Your task to perform on an android device: Is it going to rain this weekend? Image 0: 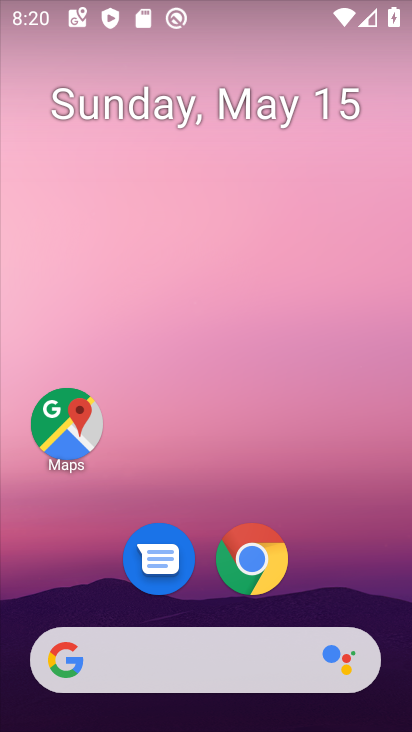
Step 0: drag from (376, 567) to (397, 153)
Your task to perform on an android device: Is it going to rain this weekend? Image 1: 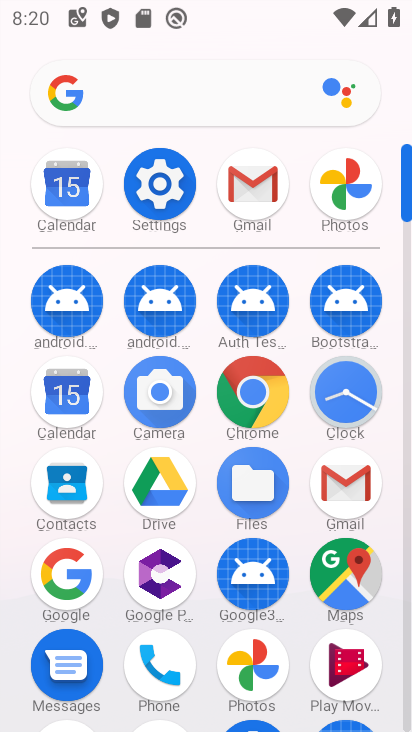
Step 1: click (217, 94)
Your task to perform on an android device: Is it going to rain this weekend? Image 2: 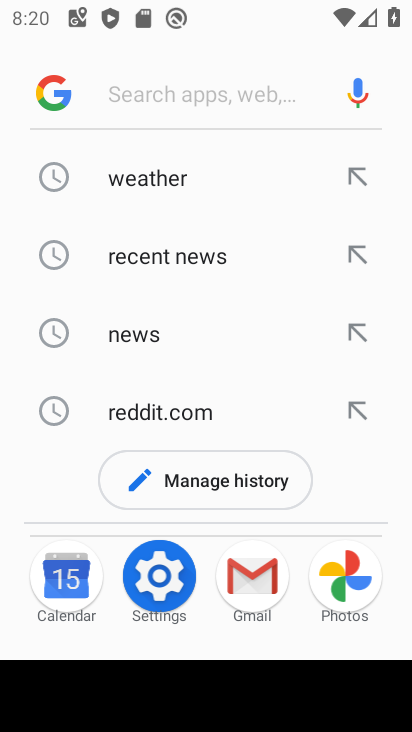
Step 2: click (176, 208)
Your task to perform on an android device: Is it going to rain this weekend? Image 3: 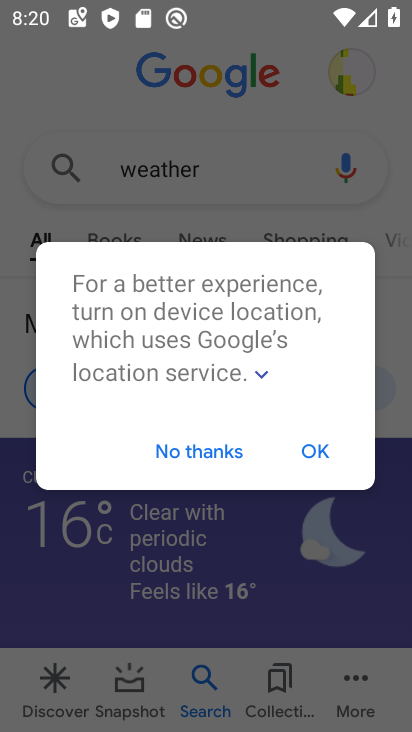
Step 3: click (299, 454)
Your task to perform on an android device: Is it going to rain this weekend? Image 4: 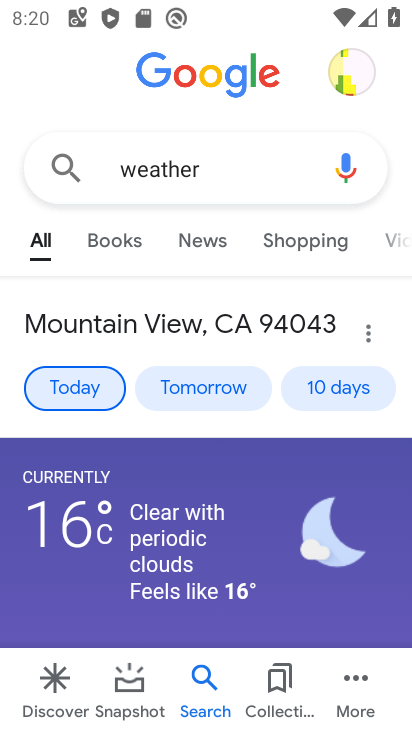
Step 4: click (328, 387)
Your task to perform on an android device: Is it going to rain this weekend? Image 5: 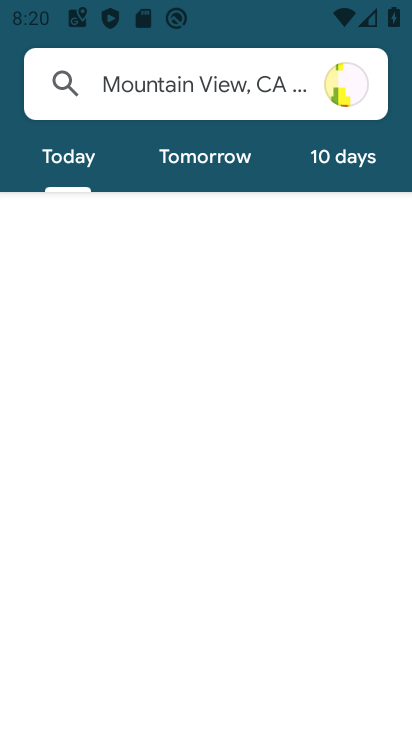
Step 5: task complete